Your task to perform on an android device: Open privacy settings Image 0: 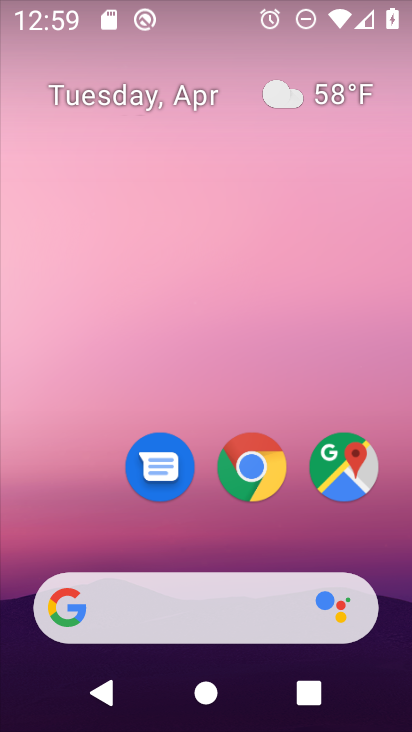
Step 0: drag from (204, 20) to (254, 616)
Your task to perform on an android device: Open privacy settings Image 1: 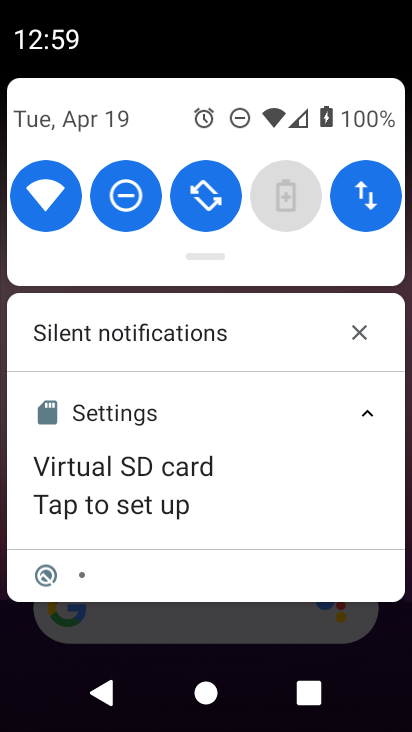
Step 1: drag from (258, 138) to (346, 665)
Your task to perform on an android device: Open privacy settings Image 2: 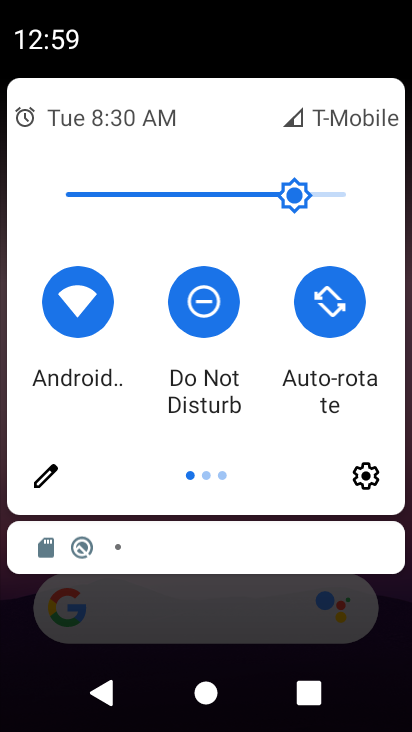
Step 2: click (376, 466)
Your task to perform on an android device: Open privacy settings Image 3: 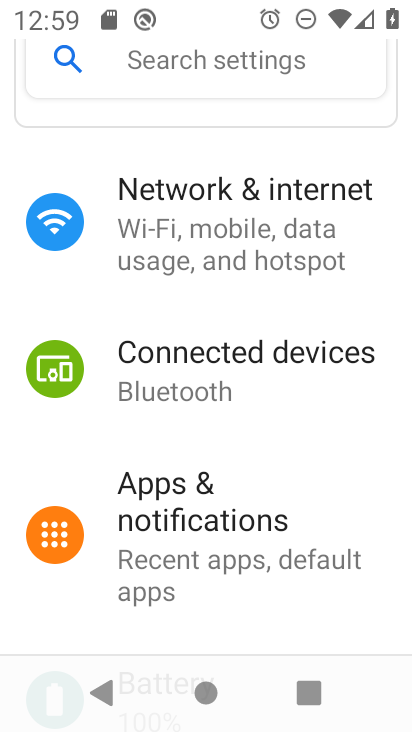
Step 3: drag from (171, 577) to (153, 56)
Your task to perform on an android device: Open privacy settings Image 4: 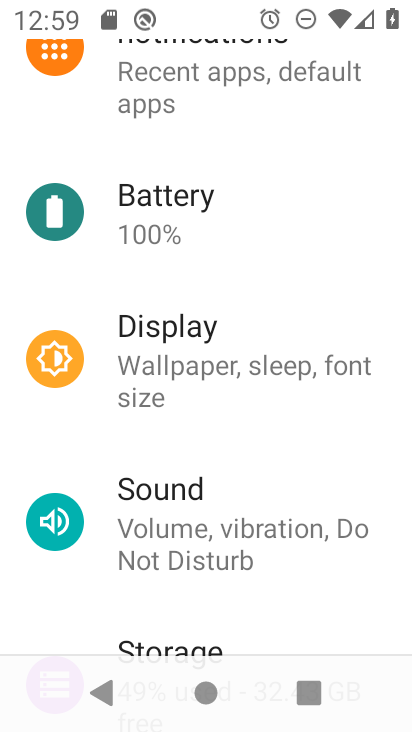
Step 4: drag from (108, 512) to (135, 123)
Your task to perform on an android device: Open privacy settings Image 5: 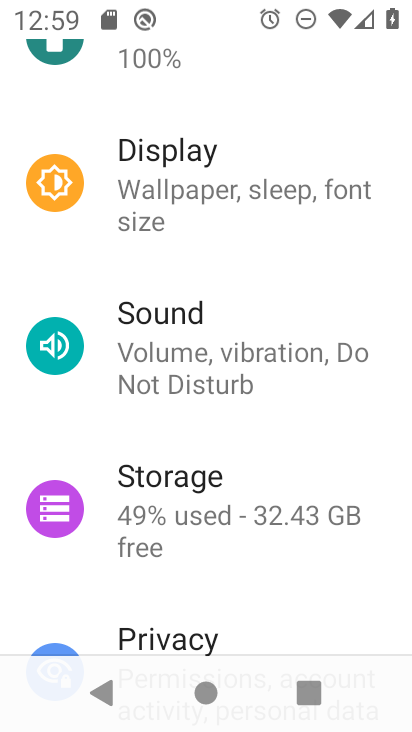
Step 5: drag from (115, 623) to (174, 167)
Your task to perform on an android device: Open privacy settings Image 6: 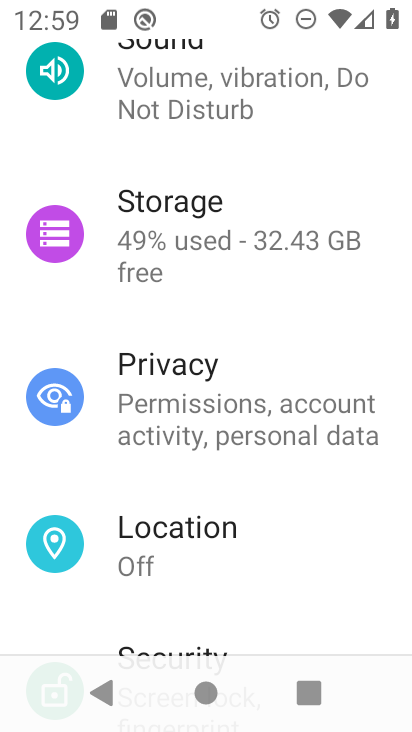
Step 6: click (162, 420)
Your task to perform on an android device: Open privacy settings Image 7: 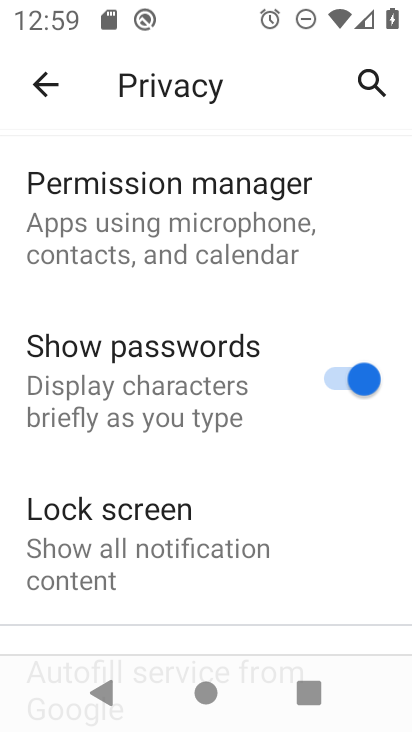
Step 7: task complete